Your task to perform on an android device: Open Google Chrome Image 0: 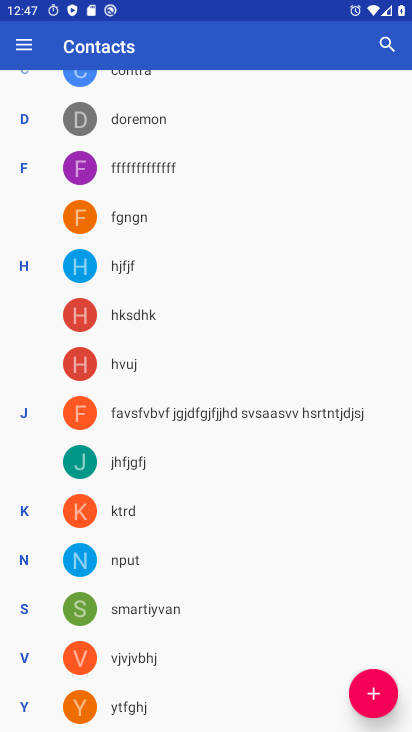
Step 0: press home button
Your task to perform on an android device: Open Google Chrome Image 1: 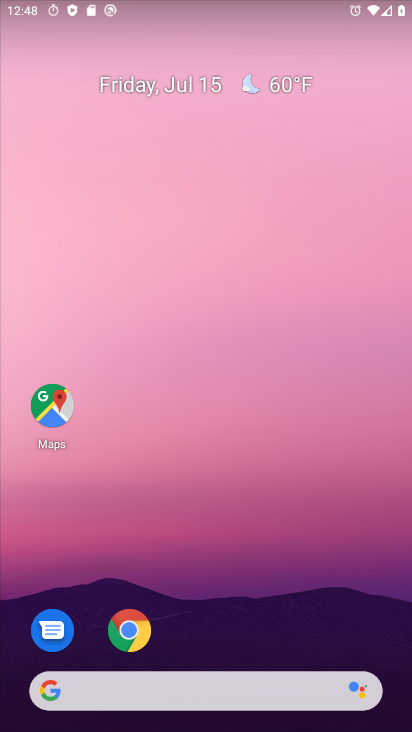
Step 1: click (123, 630)
Your task to perform on an android device: Open Google Chrome Image 2: 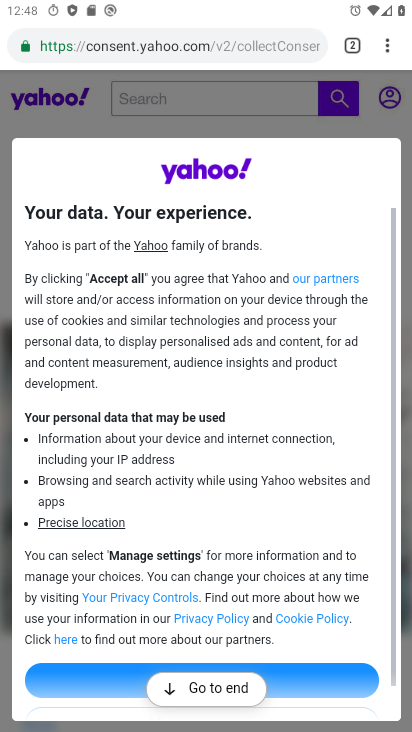
Step 2: task complete